Your task to perform on an android device: empty trash in google photos Image 0: 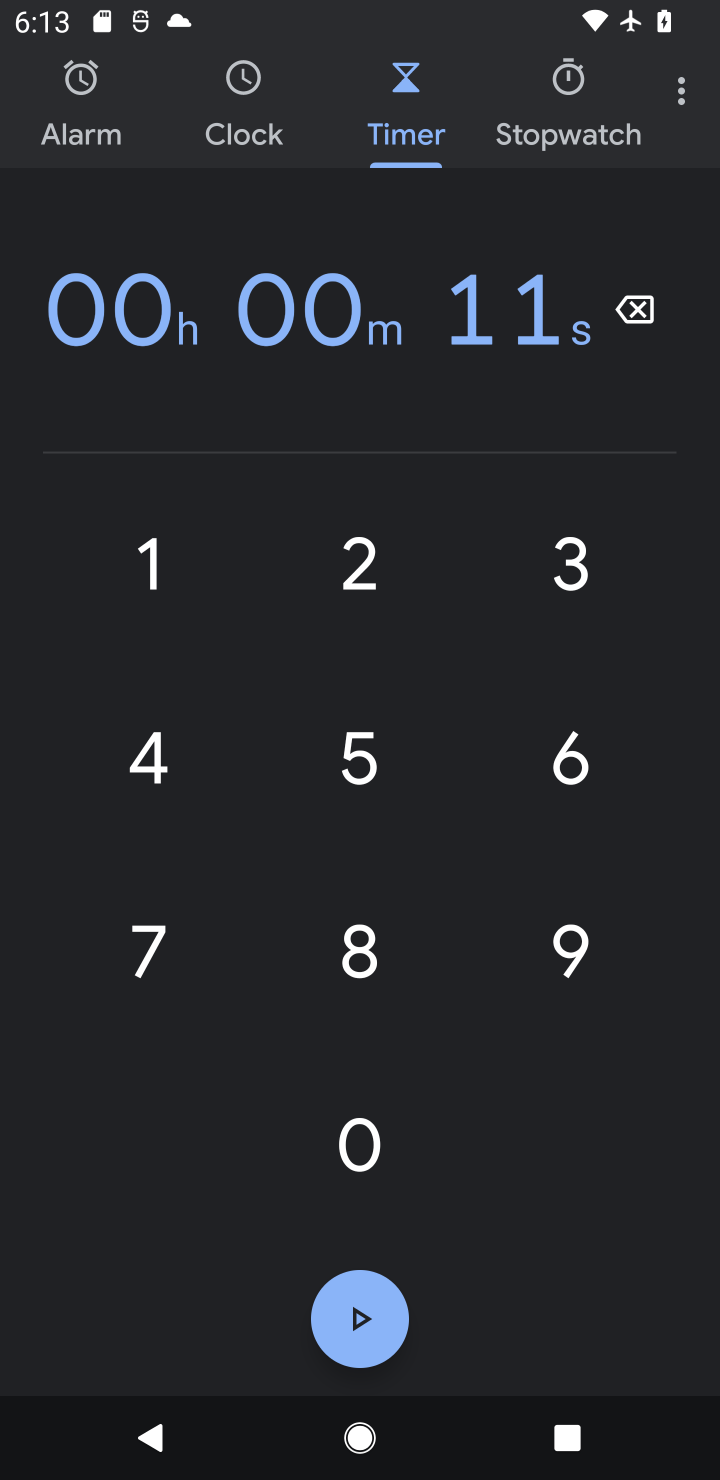
Step 0: press home button
Your task to perform on an android device: empty trash in google photos Image 1: 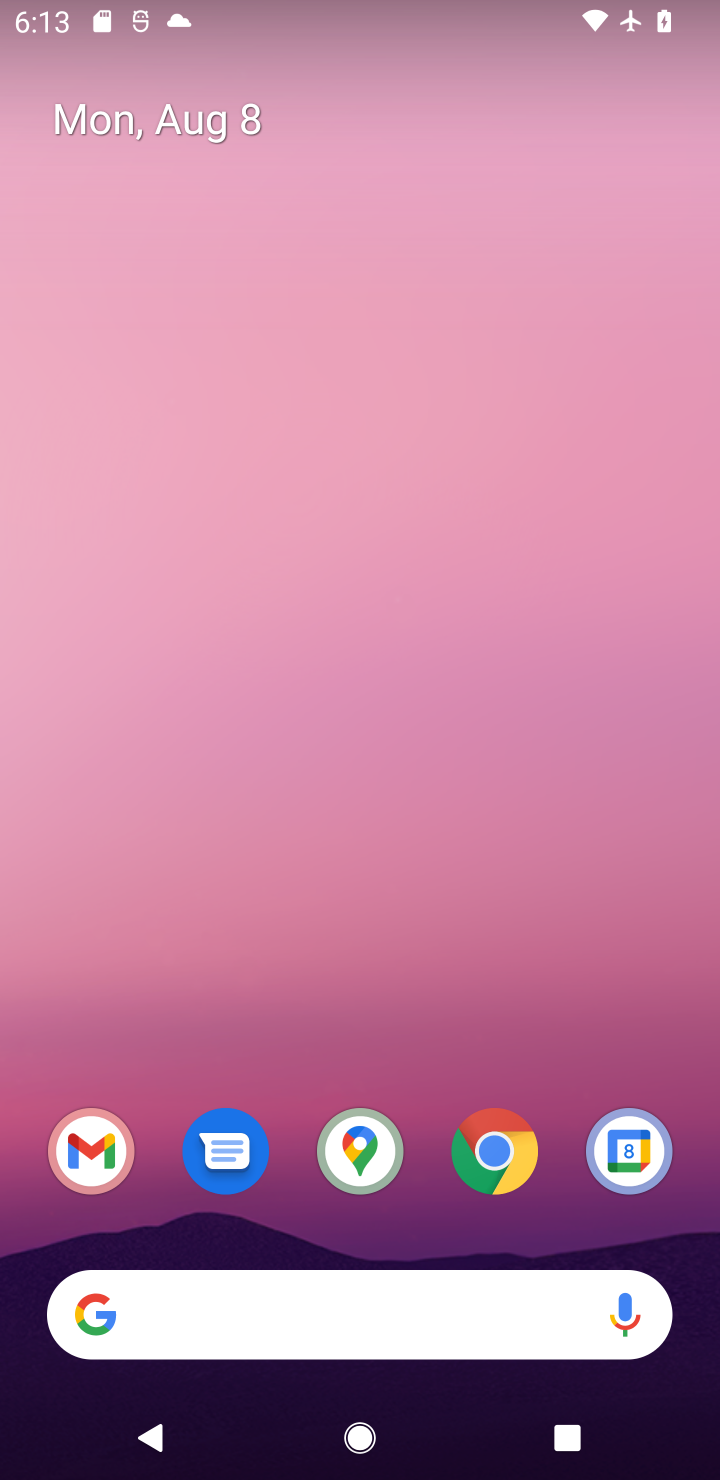
Step 1: drag from (365, 361) to (365, 102)
Your task to perform on an android device: empty trash in google photos Image 2: 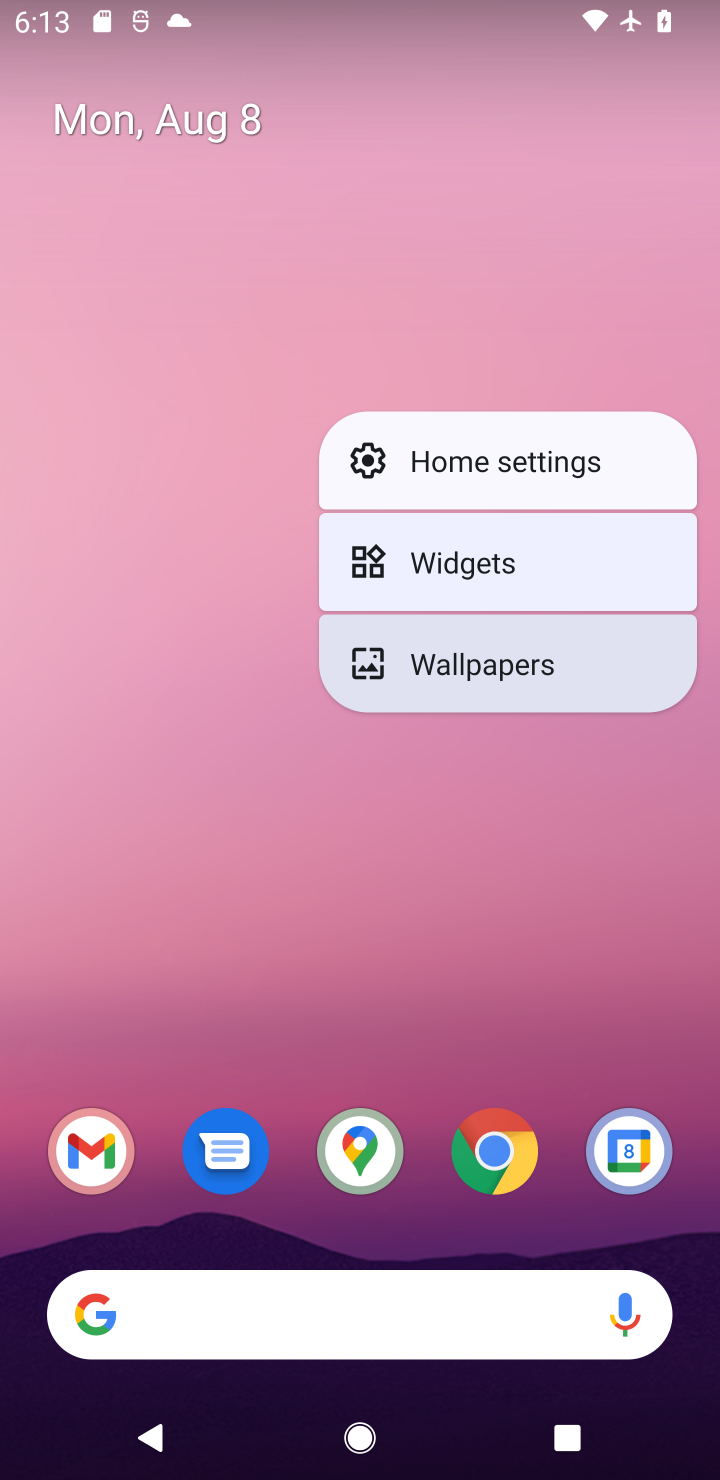
Step 2: click (302, 957)
Your task to perform on an android device: empty trash in google photos Image 3: 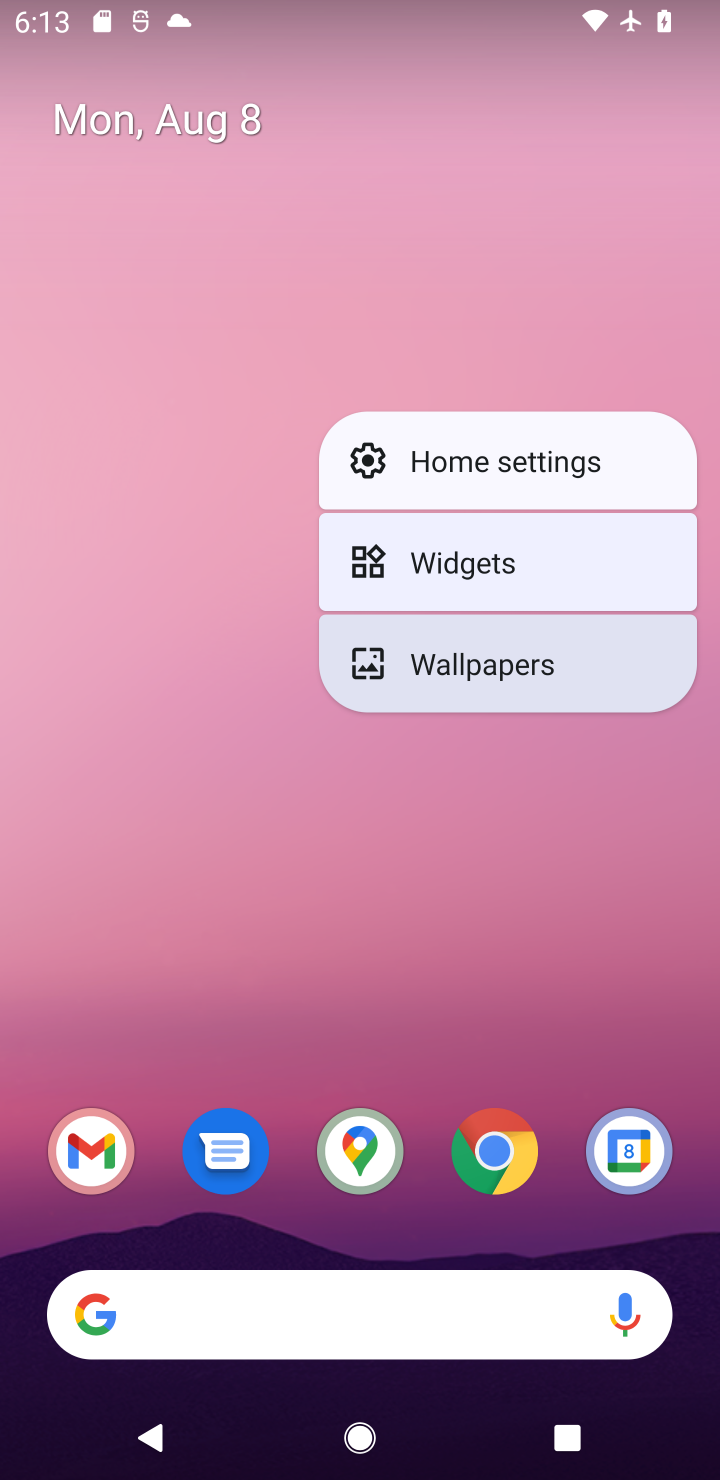
Step 3: drag from (306, 928) to (223, 342)
Your task to perform on an android device: empty trash in google photos Image 4: 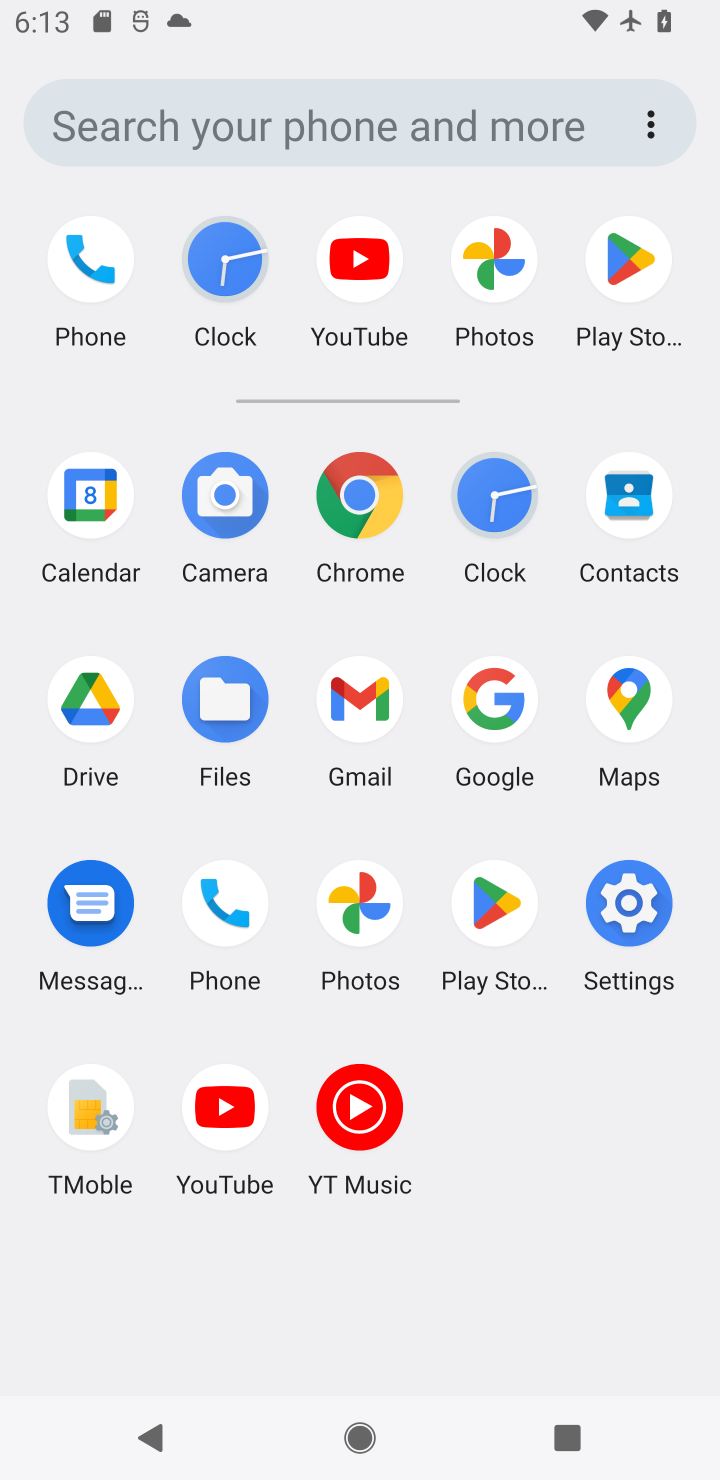
Step 4: click (490, 277)
Your task to perform on an android device: empty trash in google photos Image 5: 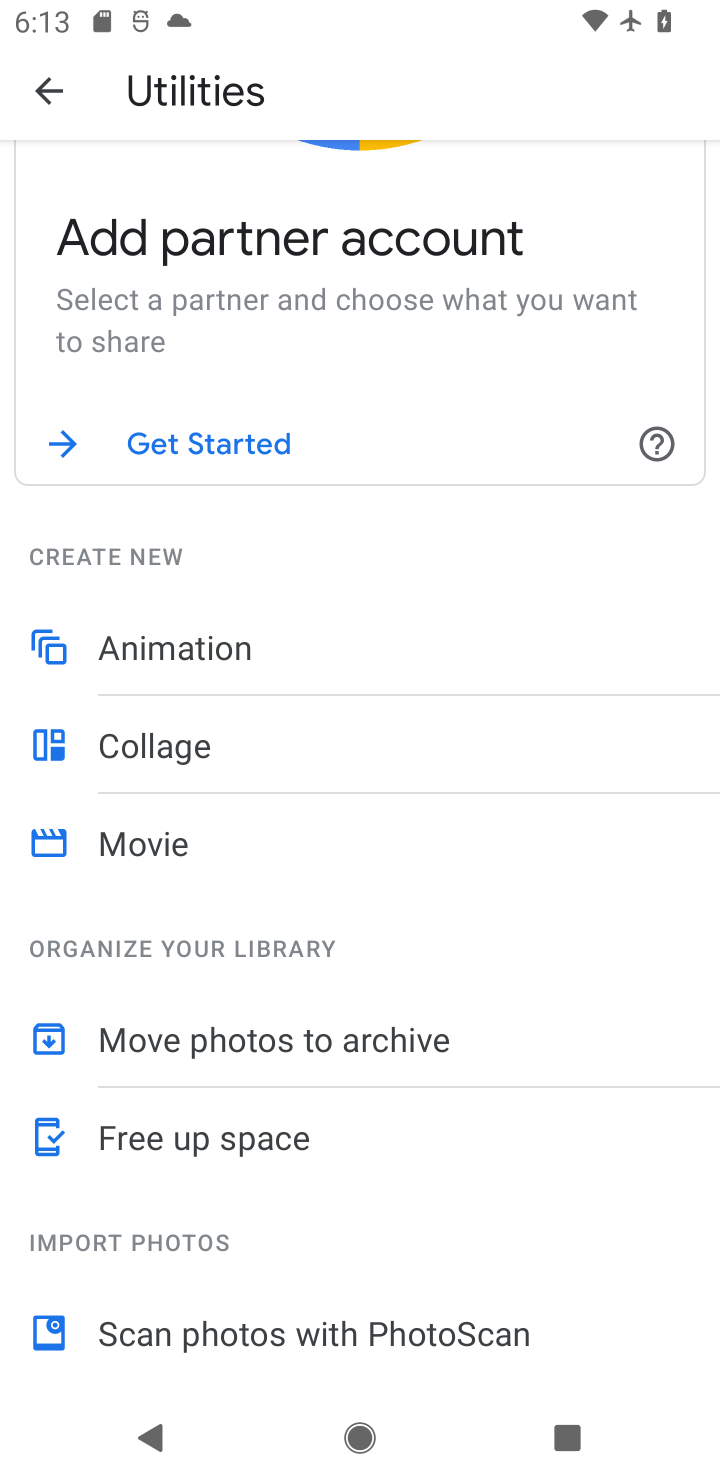
Step 5: drag from (365, 1098) to (432, 422)
Your task to perform on an android device: empty trash in google photos Image 6: 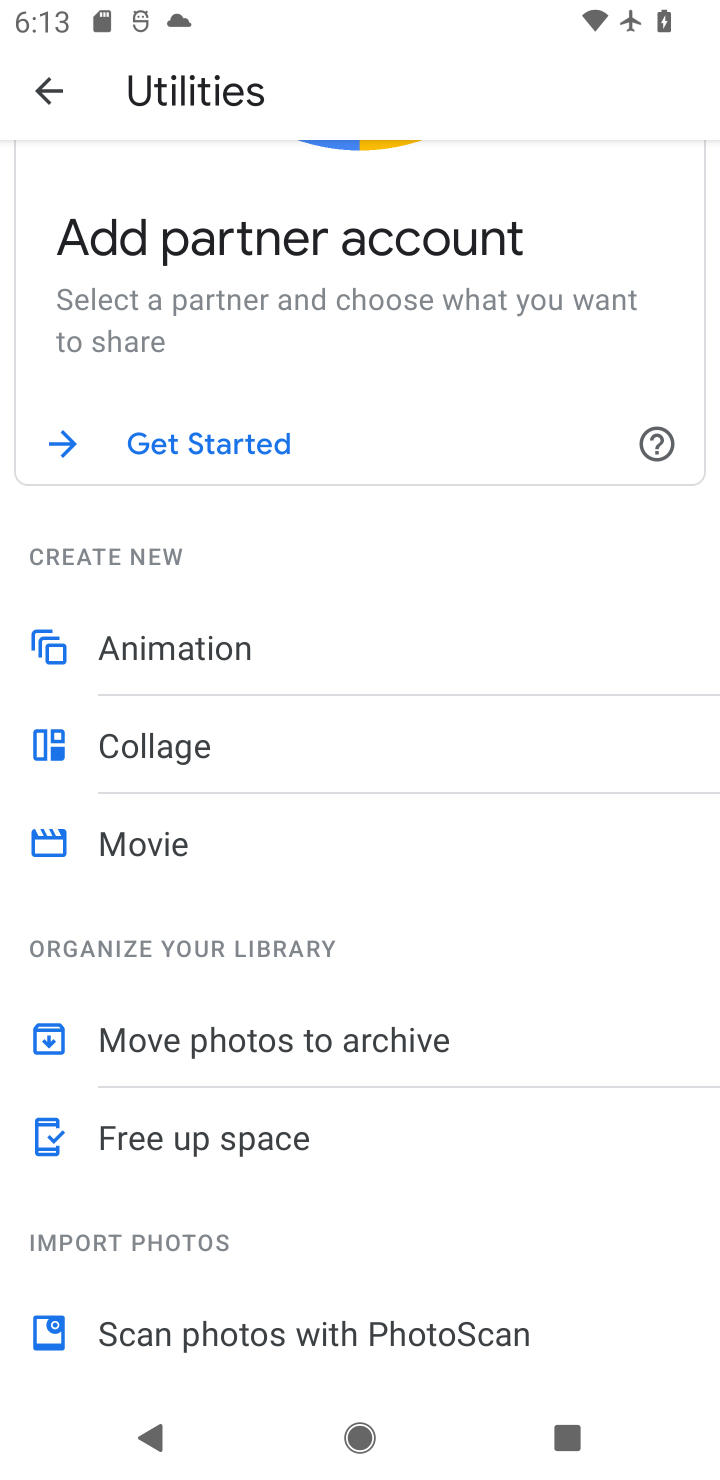
Step 6: click (45, 92)
Your task to perform on an android device: empty trash in google photos Image 7: 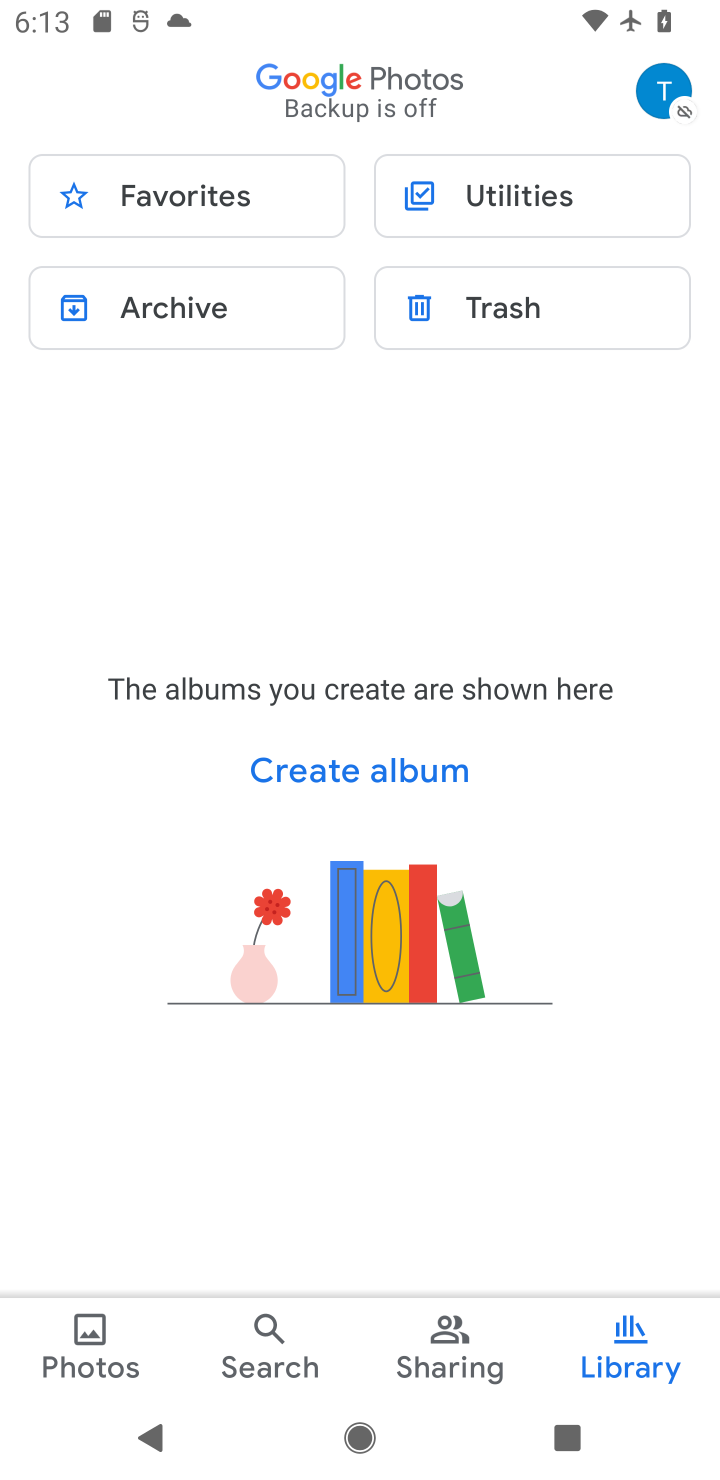
Step 7: click (448, 314)
Your task to perform on an android device: empty trash in google photos Image 8: 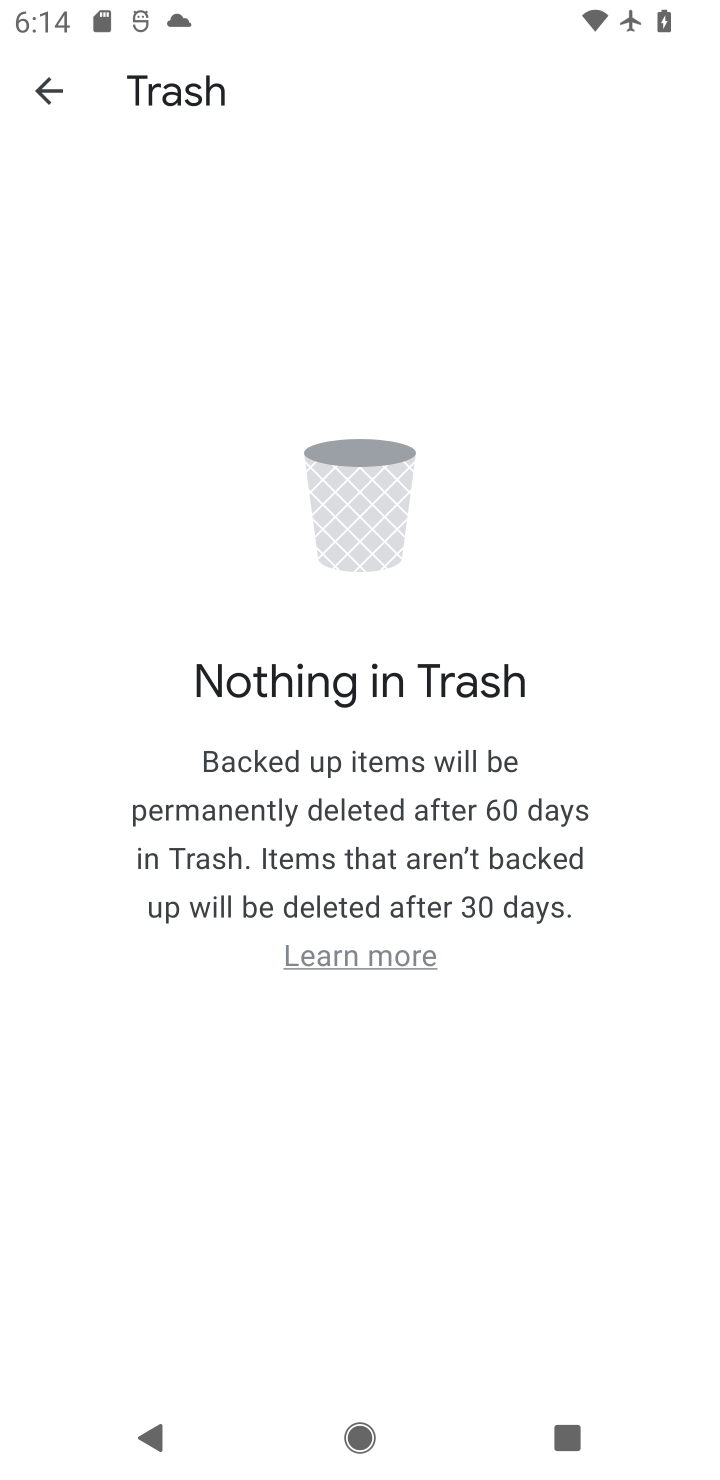
Step 8: task complete